Your task to perform on an android device: Go to Amazon Image 0: 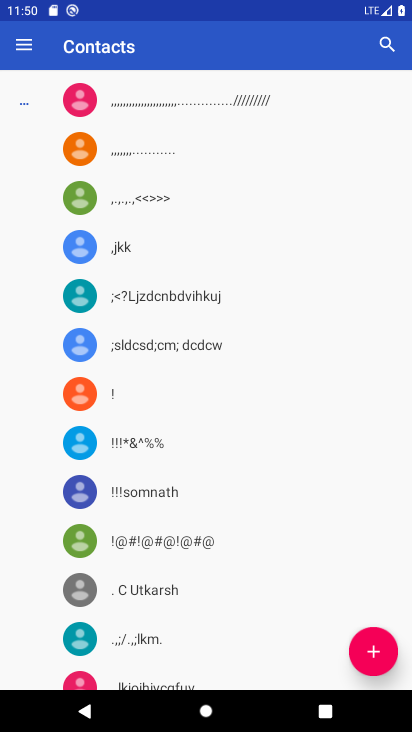
Step 0: press home button
Your task to perform on an android device: Go to Amazon Image 1: 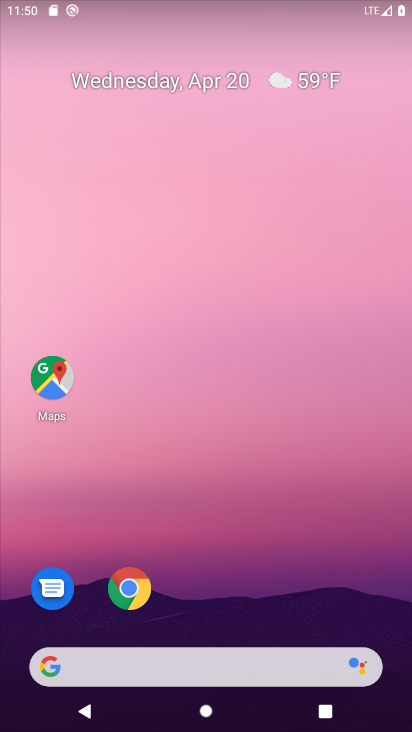
Step 1: click (135, 594)
Your task to perform on an android device: Go to Amazon Image 2: 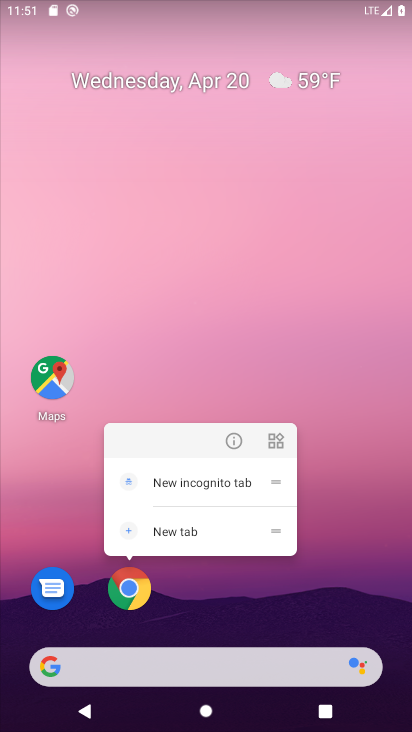
Step 2: click (134, 590)
Your task to perform on an android device: Go to Amazon Image 3: 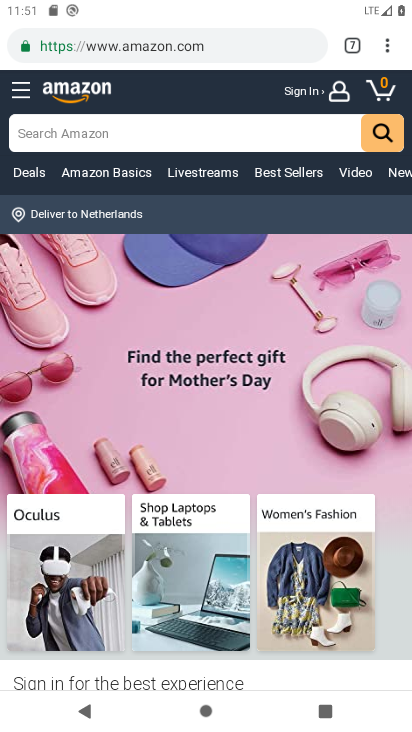
Step 3: task complete